Your task to perform on an android device: Open my contact list Image 0: 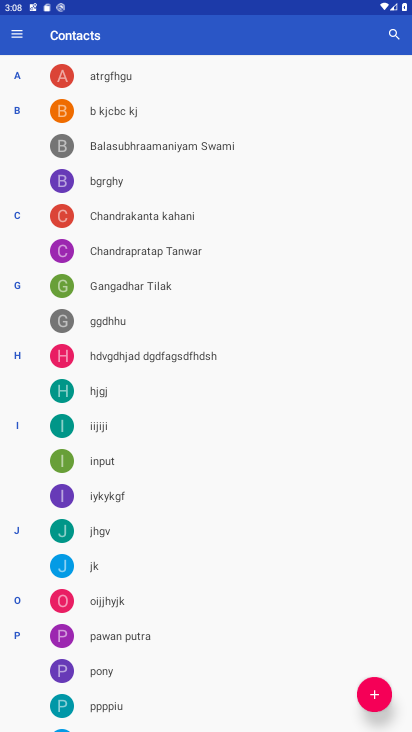
Step 0: drag from (68, 601) to (99, 298)
Your task to perform on an android device: Open my contact list Image 1: 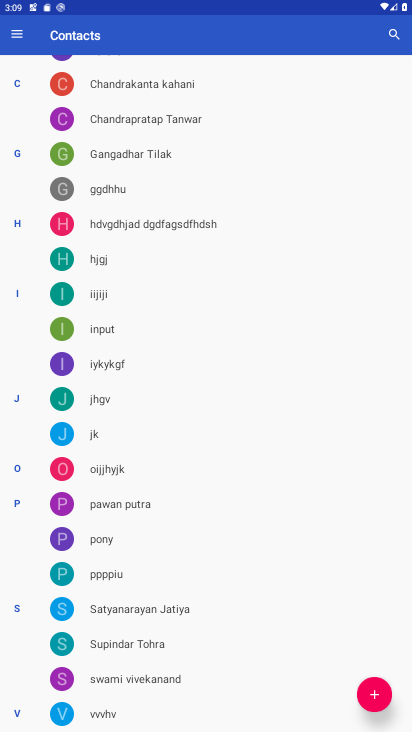
Step 1: task complete